Your task to perform on an android device: change text size in settings app Image 0: 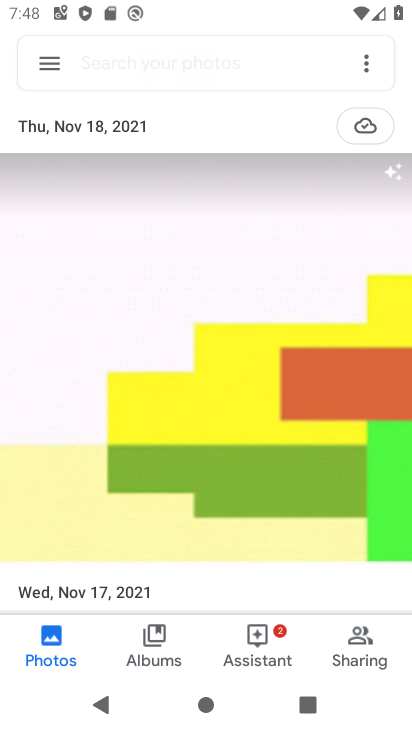
Step 0: press home button
Your task to perform on an android device: change text size in settings app Image 1: 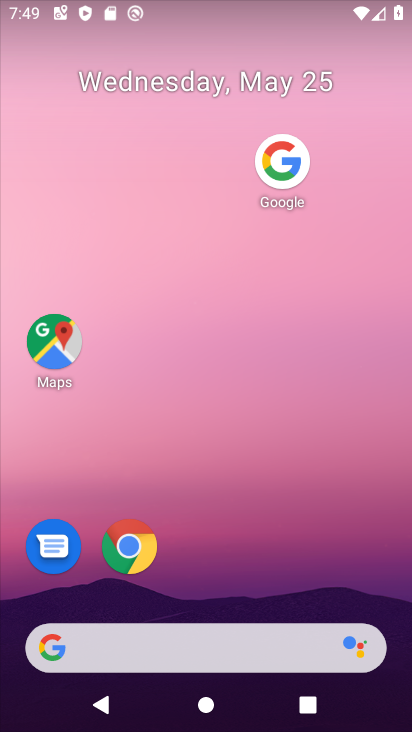
Step 1: drag from (228, 642) to (378, 56)
Your task to perform on an android device: change text size in settings app Image 2: 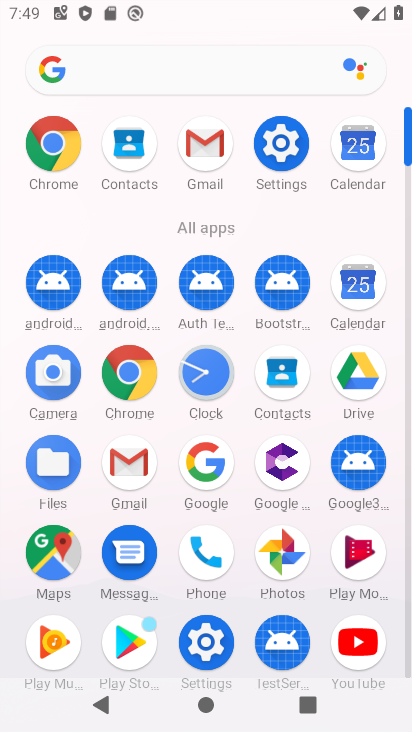
Step 2: click (295, 148)
Your task to perform on an android device: change text size in settings app Image 3: 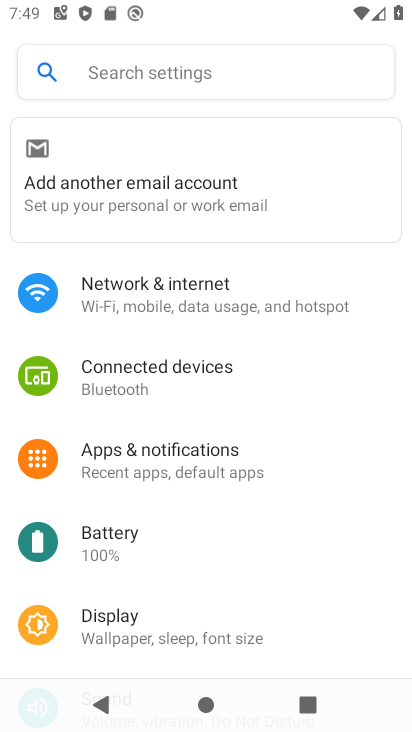
Step 3: click (215, 631)
Your task to perform on an android device: change text size in settings app Image 4: 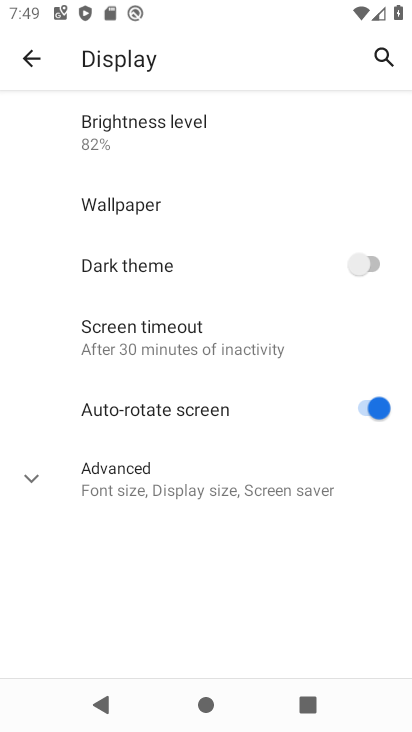
Step 4: click (147, 490)
Your task to perform on an android device: change text size in settings app Image 5: 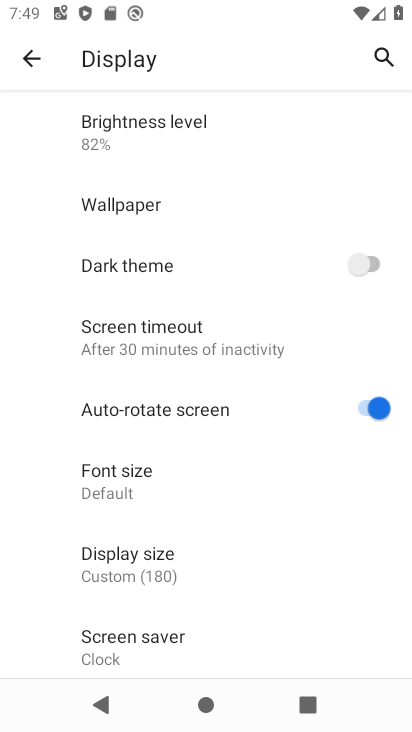
Step 5: click (116, 479)
Your task to perform on an android device: change text size in settings app Image 6: 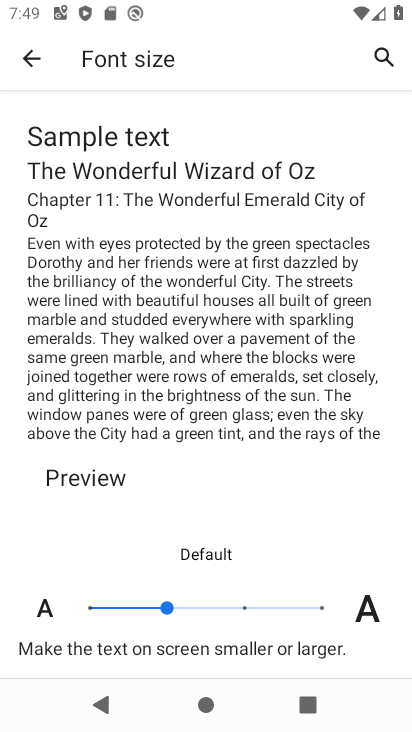
Step 6: click (91, 609)
Your task to perform on an android device: change text size in settings app Image 7: 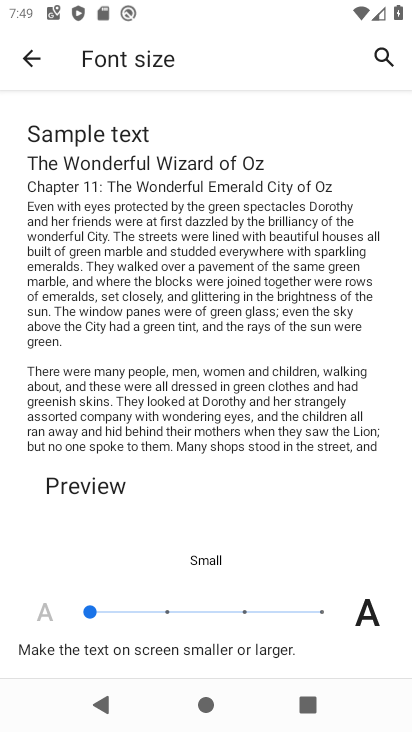
Step 7: task complete